Your task to perform on an android device: See recent photos Image 0: 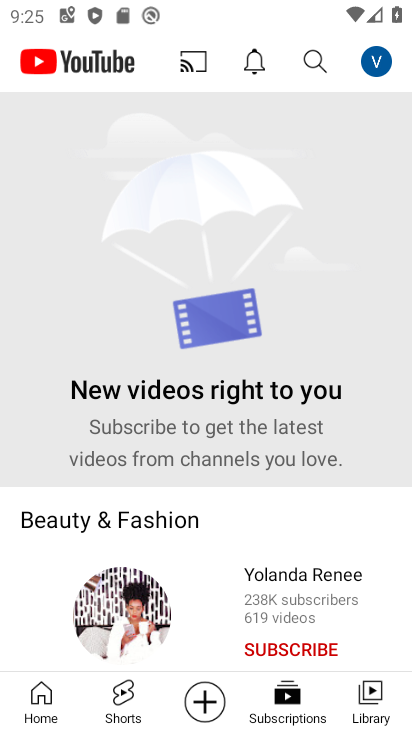
Step 0: press home button
Your task to perform on an android device: See recent photos Image 1: 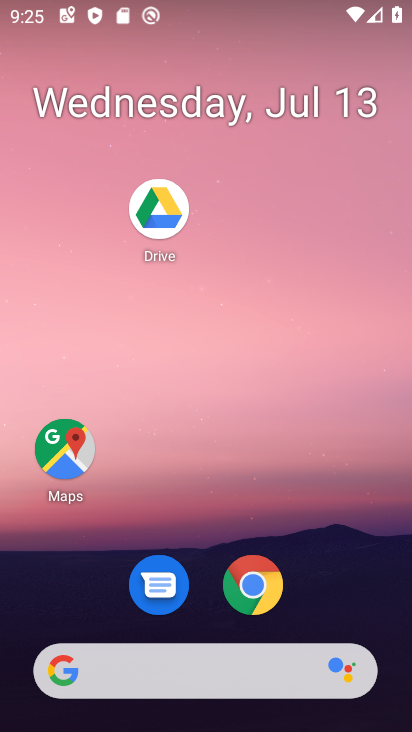
Step 1: drag from (202, 682) to (319, 147)
Your task to perform on an android device: See recent photos Image 2: 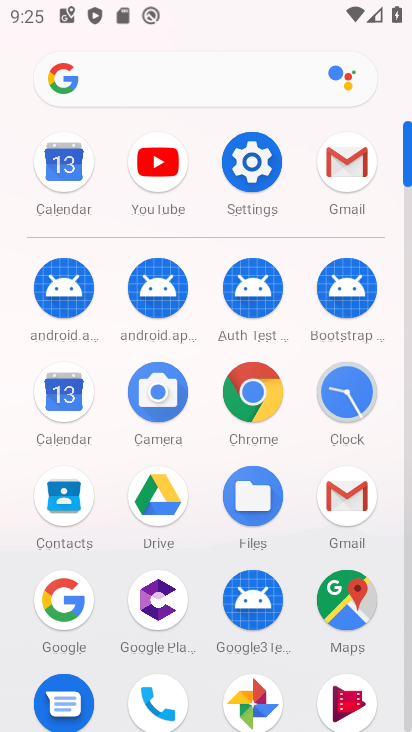
Step 2: drag from (208, 638) to (346, 136)
Your task to perform on an android device: See recent photos Image 3: 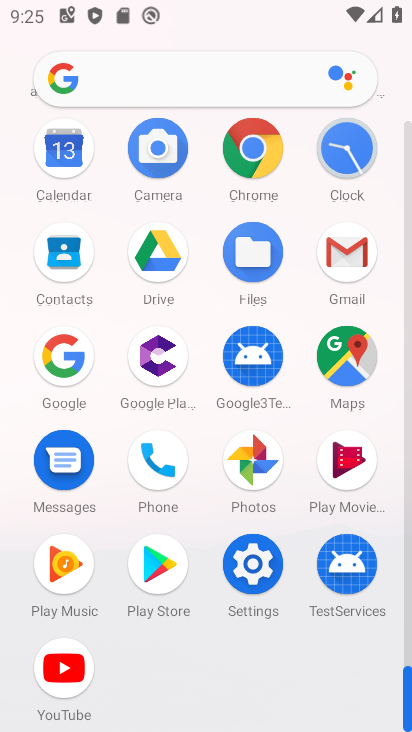
Step 3: click (256, 468)
Your task to perform on an android device: See recent photos Image 4: 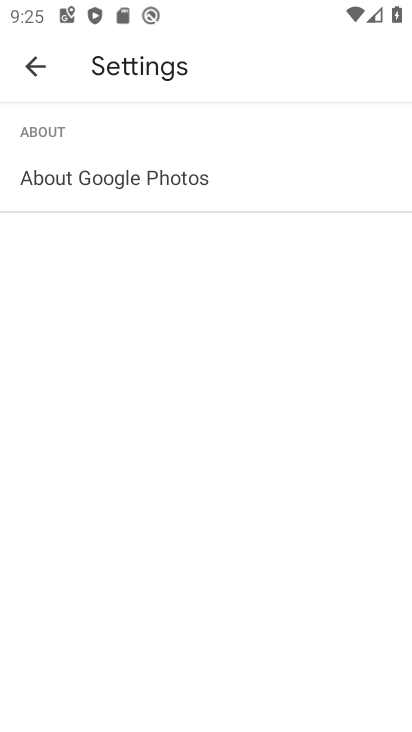
Step 4: click (43, 64)
Your task to perform on an android device: See recent photos Image 5: 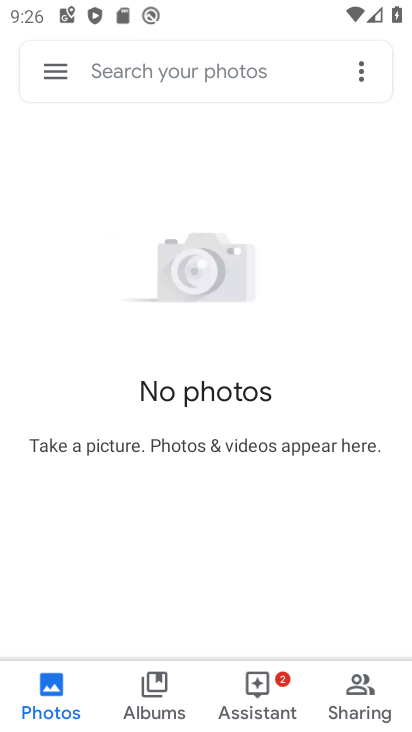
Step 5: task complete